Your task to perform on an android device: Empty the shopping cart on ebay.com. Search for "asus rog" on ebay.com, select the first entry, and add it to the cart. Image 0: 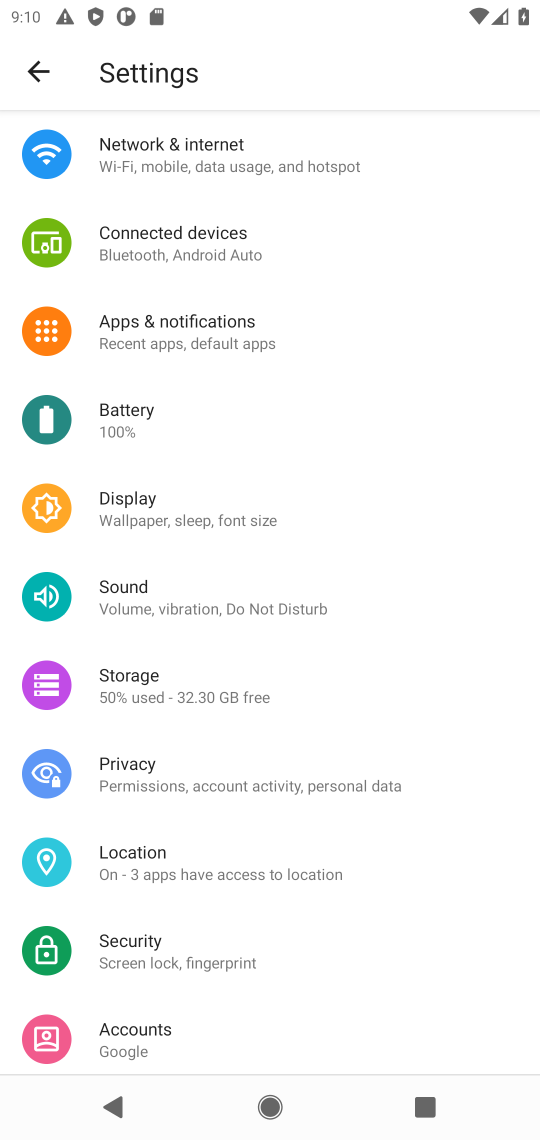
Step 0: press home button
Your task to perform on an android device: Empty the shopping cart on ebay.com. Search for "asus rog" on ebay.com, select the first entry, and add it to the cart. Image 1: 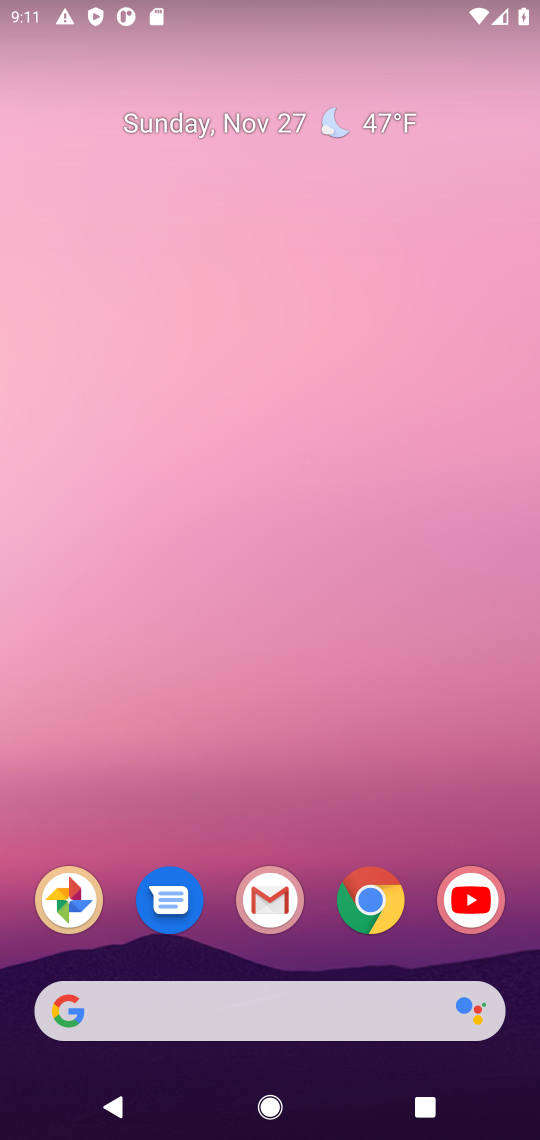
Step 1: click (363, 904)
Your task to perform on an android device: Empty the shopping cart on ebay.com. Search for "asus rog" on ebay.com, select the first entry, and add it to the cart. Image 2: 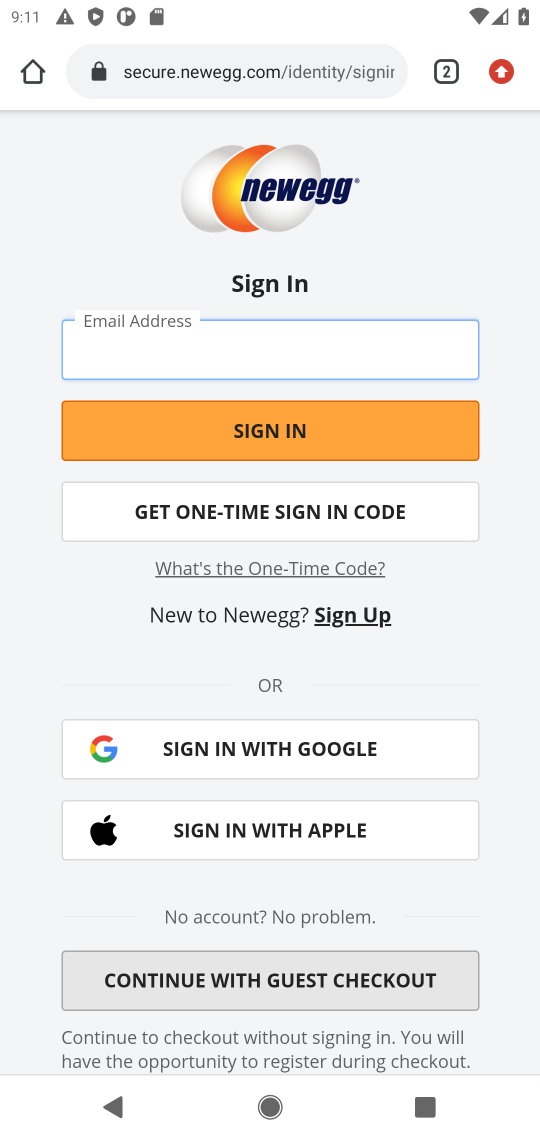
Step 2: click (211, 61)
Your task to perform on an android device: Empty the shopping cart on ebay.com. Search for "asus rog" on ebay.com, select the first entry, and add it to the cart. Image 3: 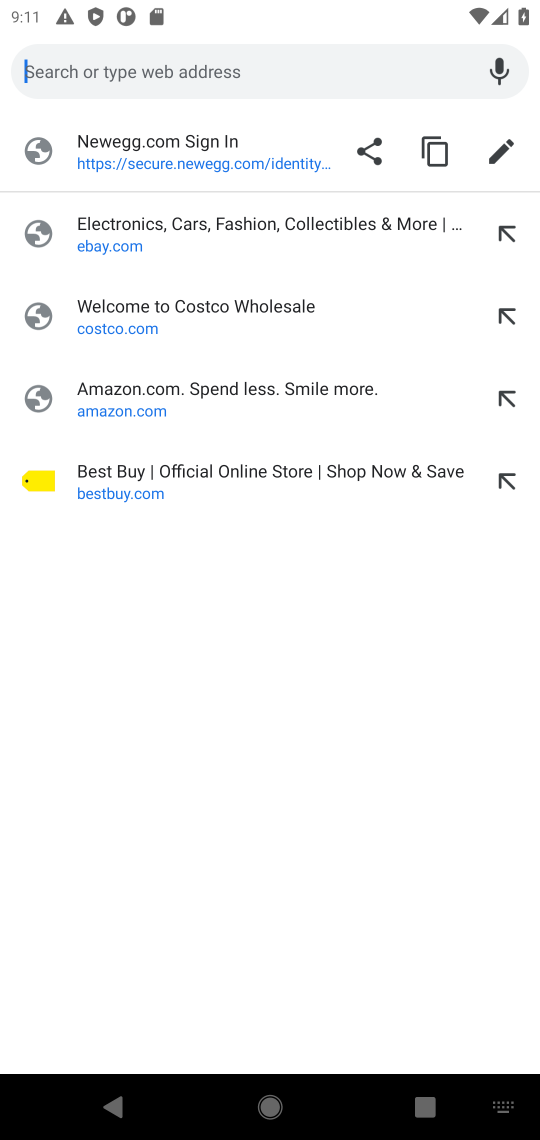
Step 3: click (106, 242)
Your task to perform on an android device: Empty the shopping cart on ebay.com. Search for "asus rog" on ebay.com, select the first entry, and add it to the cart. Image 4: 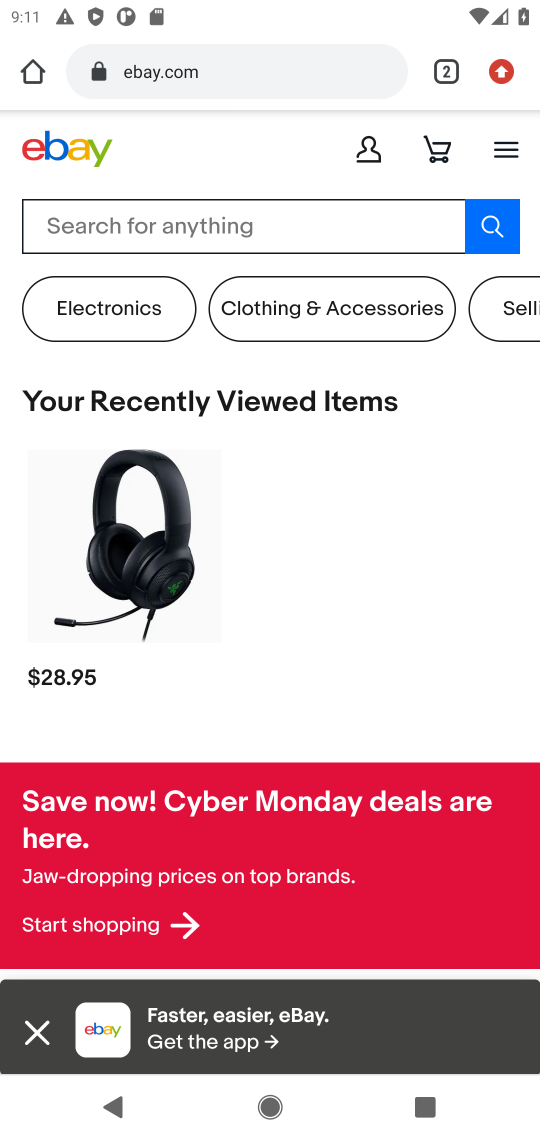
Step 4: click (436, 146)
Your task to perform on an android device: Empty the shopping cart on ebay.com. Search for "asus rog" on ebay.com, select the first entry, and add it to the cart. Image 5: 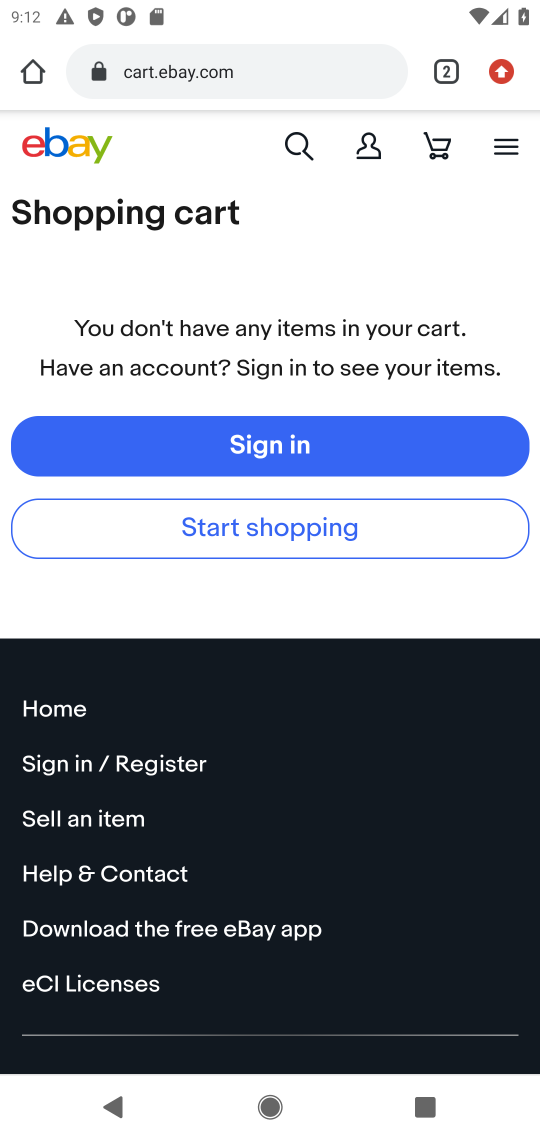
Step 5: click (298, 138)
Your task to perform on an android device: Empty the shopping cart on ebay.com. Search for "asus rog" on ebay.com, select the first entry, and add it to the cart. Image 6: 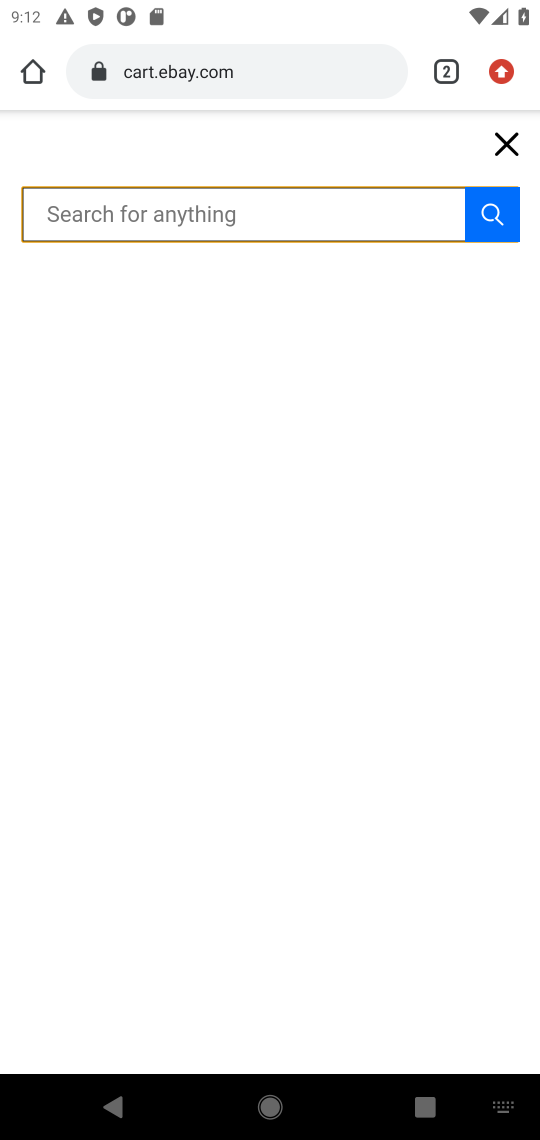
Step 6: type "asus rog"
Your task to perform on an android device: Empty the shopping cart on ebay.com. Search for "asus rog" on ebay.com, select the first entry, and add it to the cart. Image 7: 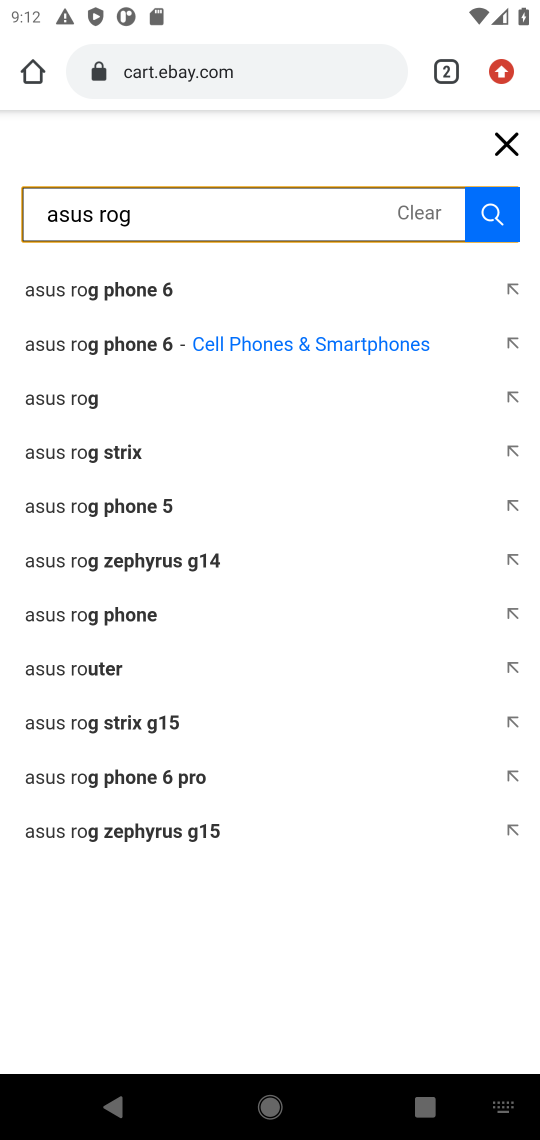
Step 7: click (65, 402)
Your task to perform on an android device: Empty the shopping cart on ebay.com. Search for "asus rog" on ebay.com, select the first entry, and add it to the cart. Image 8: 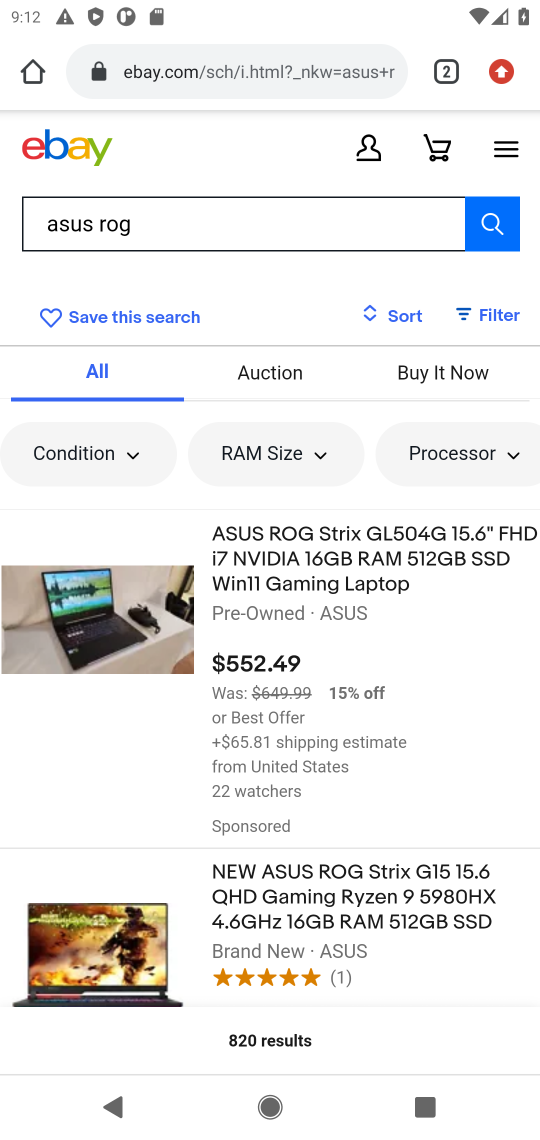
Step 8: click (314, 585)
Your task to perform on an android device: Empty the shopping cart on ebay.com. Search for "asus rog" on ebay.com, select the first entry, and add it to the cart. Image 9: 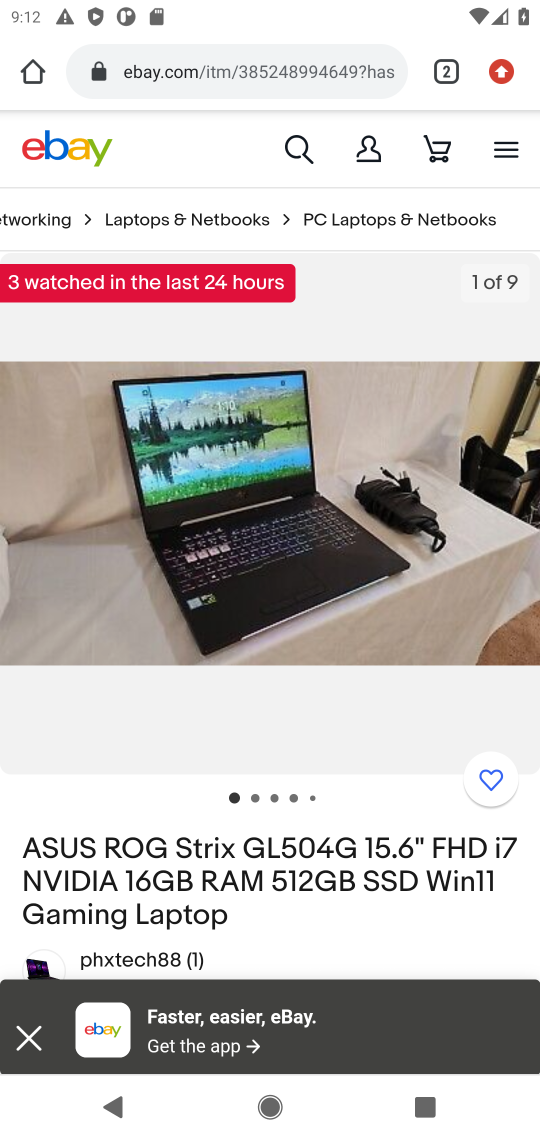
Step 9: drag from (297, 739) to (297, 644)
Your task to perform on an android device: Empty the shopping cart on ebay.com. Search for "asus rog" on ebay.com, select the first entry, and add it to the cart. Image 10: 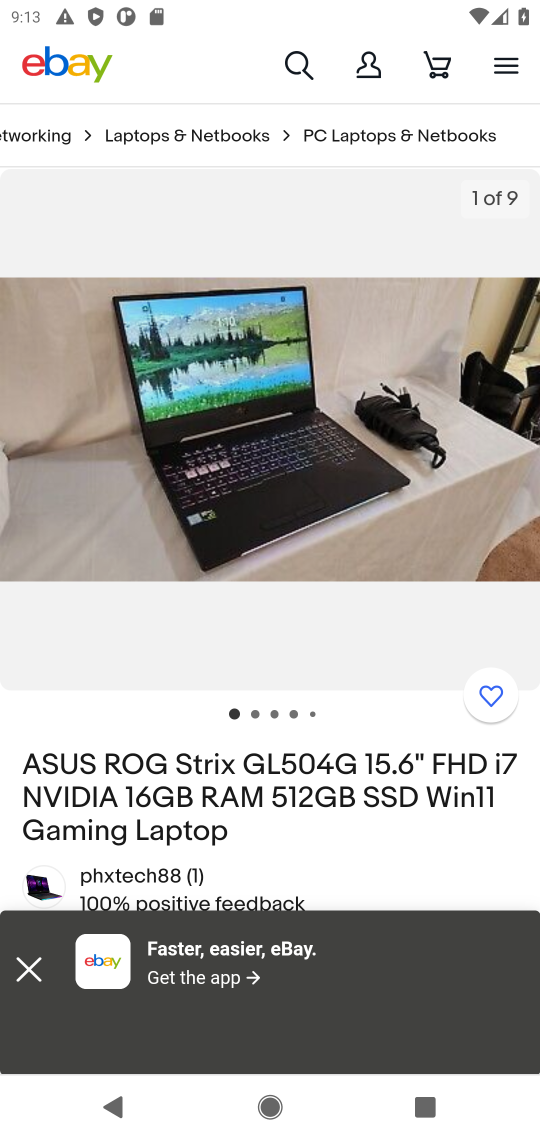
Step 10: drag from (438, 600) to (369, 532)
Your task to perform on an android device: Empty the shopping cart on ebay.com. Search for "asus rog" on ebay.com, select the first entry, and add it to the cart. Image 11: 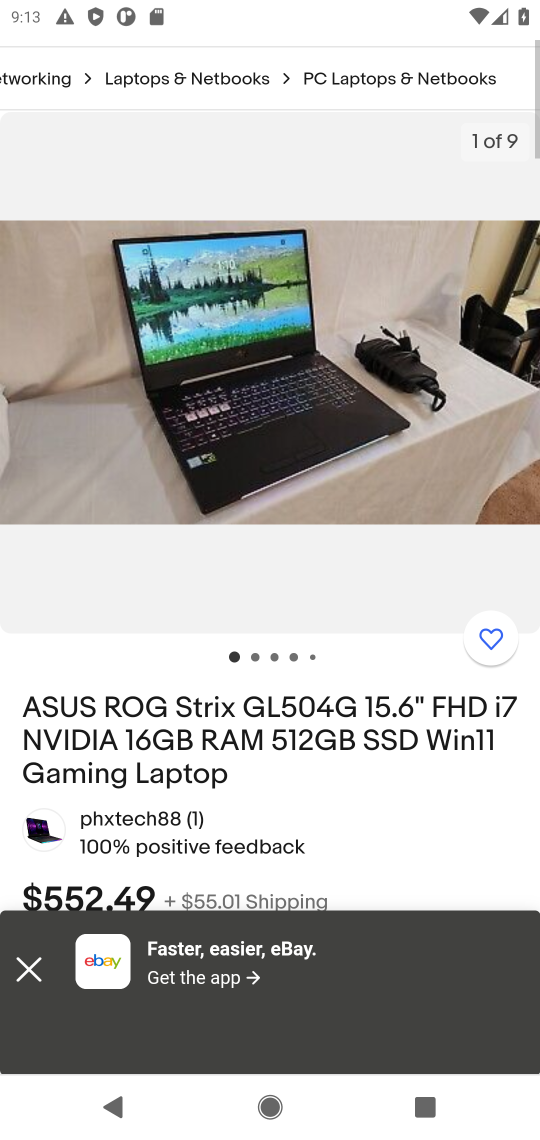
Step 11: drag from (369, 532) to (376, 88)
Your task to perform on an android device: Empty the shopping cart on ebay.com. Search for "asus rog" on ebay.com, select the first entry, and add it to the cart. Image 12: 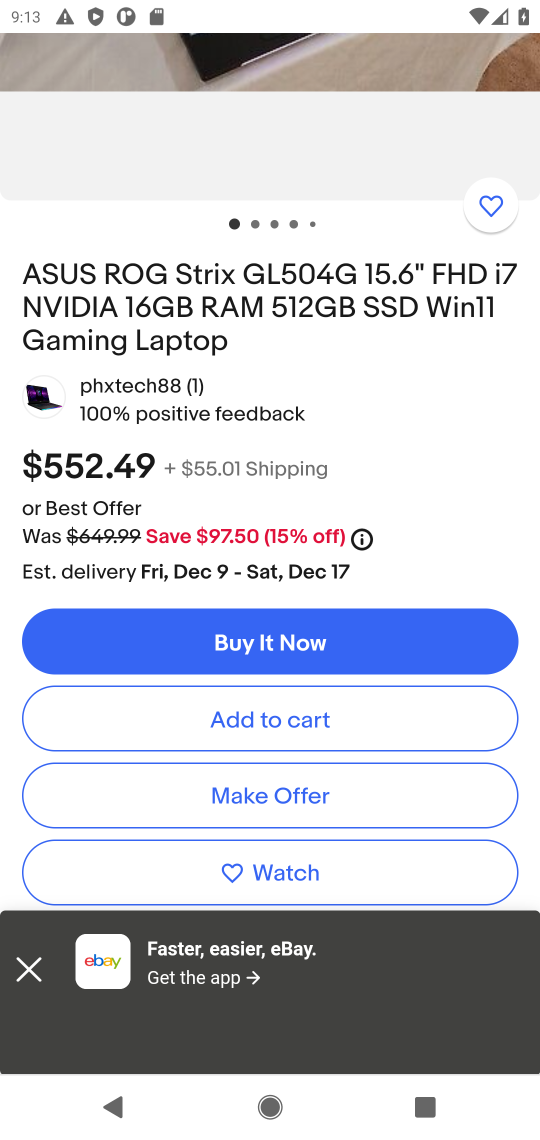
Step 12: click (219, 707)
Your task to perform on an android device: Empty the shopping cart on ebay.com. Search for "asus rog" on ebay.com, select the first entry, and add it to the cart. Image 13: 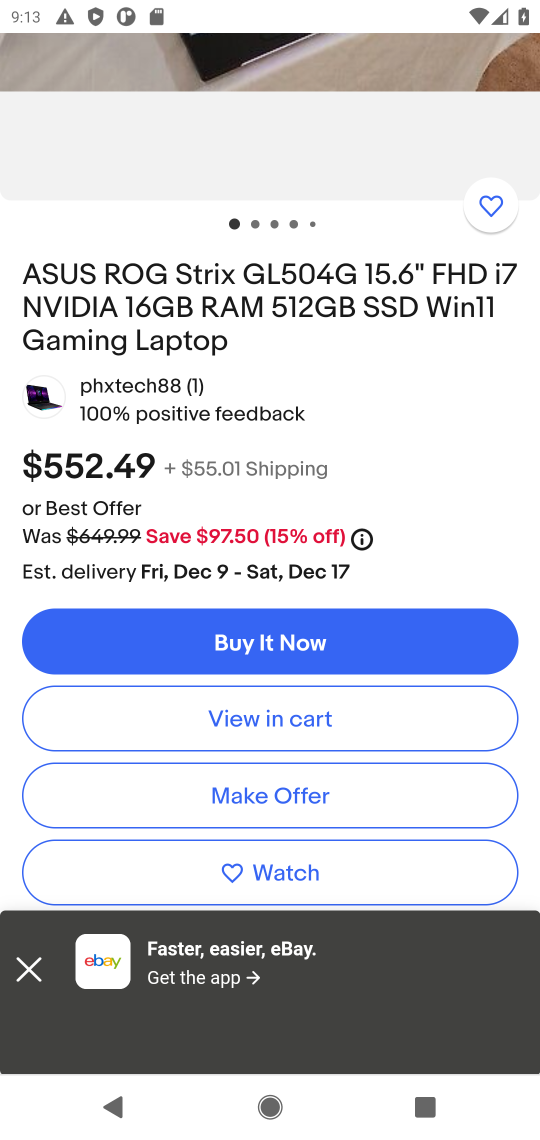
Step 13: task complete